Your task to perform on an android device: Go to Wikipedia Image 0: 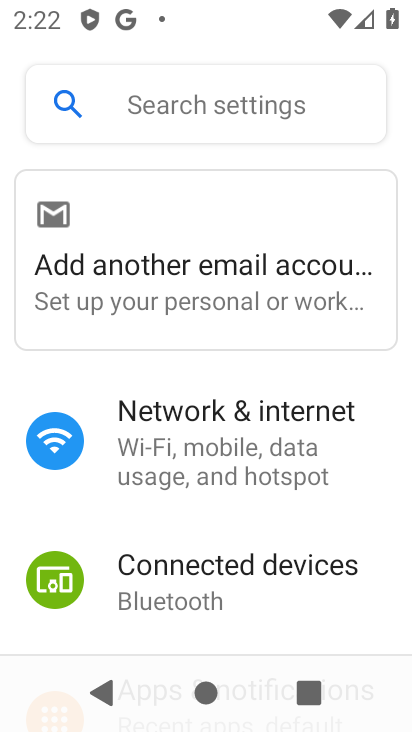
Step 0: press home button
Your task to perform on an android device: Go to Wikipedia Image 1: 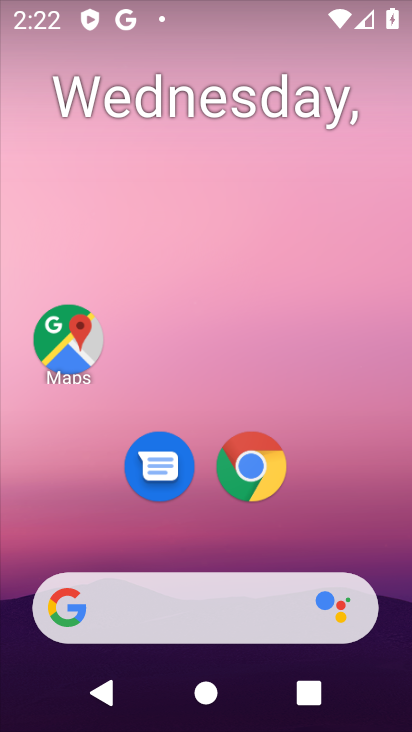
Step 1: click (257, 498)
Your task to perform on an android device: Go to Wikipedia Image 2: 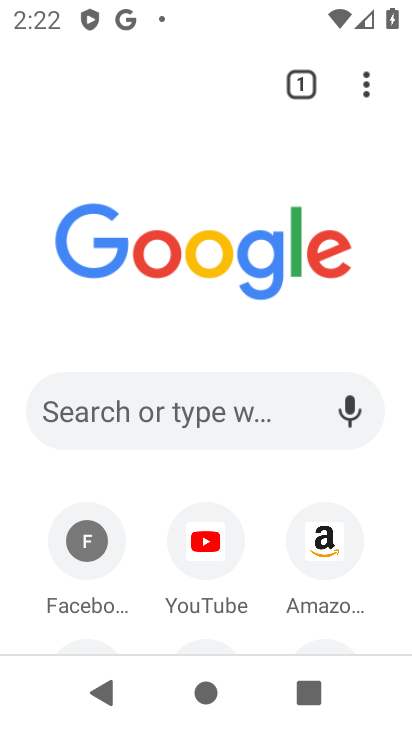
Step 2: drag from (368, 512) to (338, 195)
Your task to perform on an android device: Go to Wikipedia Image 3: 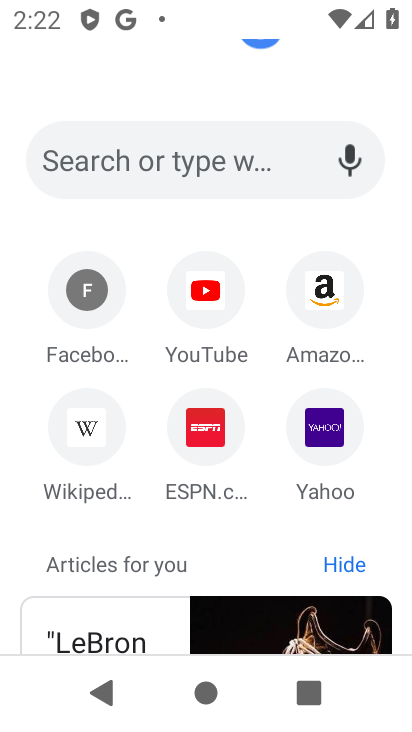
Step 3: click (79, 444)
Your task to perform on an android device: Go to Wikipedia Image 4: 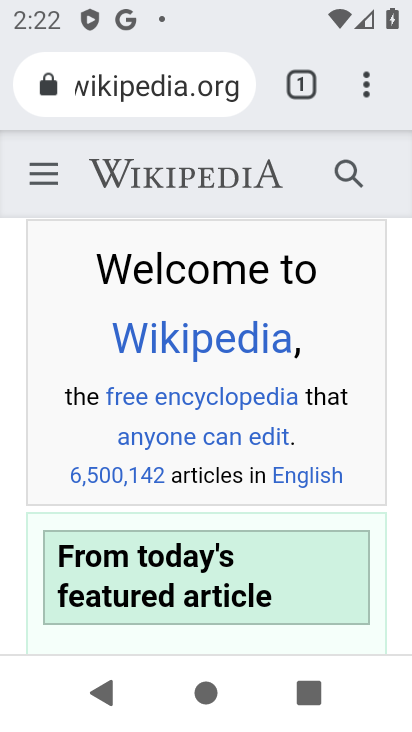
Step 4: task complete